Your task to perform on an android device: Show the shopping cart on walmart.com. Add "apple airpods" to the cart on walmart.com Image 0: 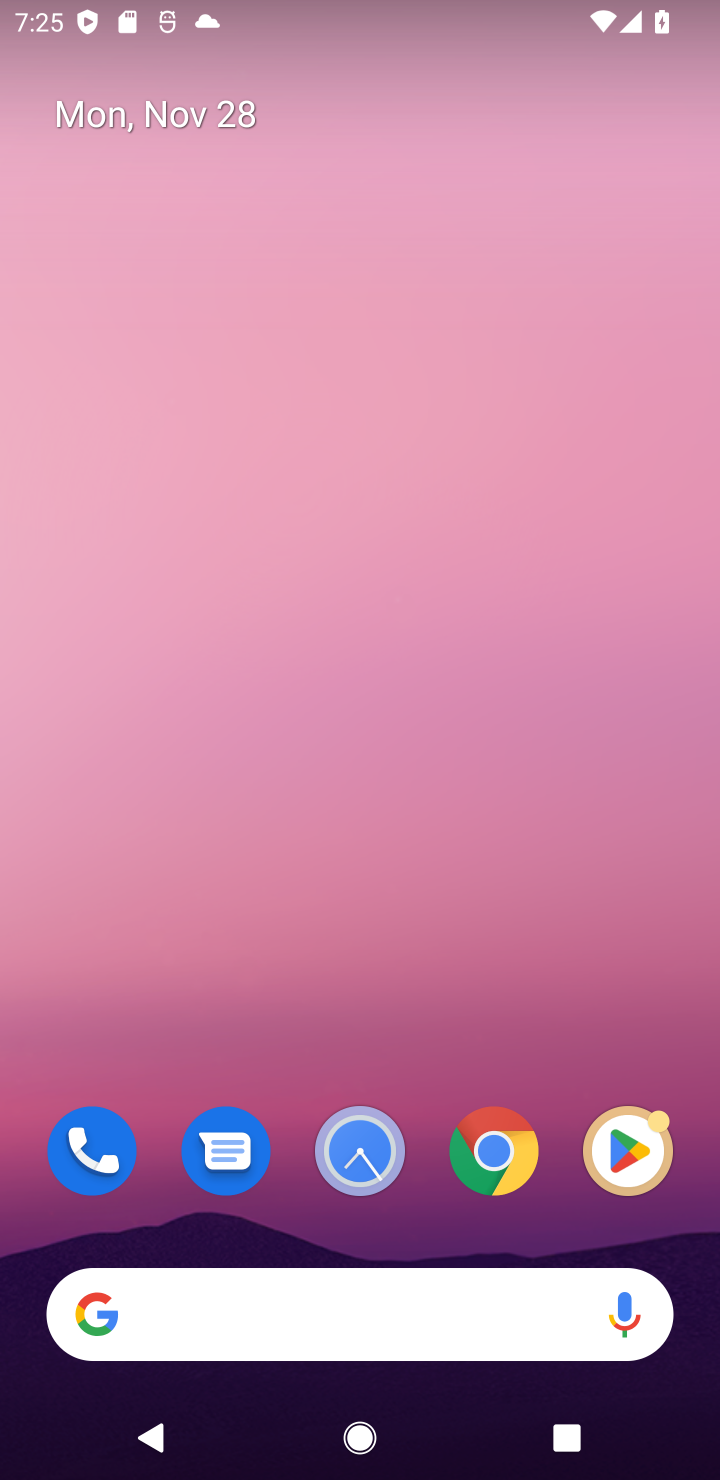
Step 0: click (219, 1351)
Your task to perform on an android device: Show the shopping cart on walmart.com. Add "apple airpods" to the cart on walmart.com Image 1: 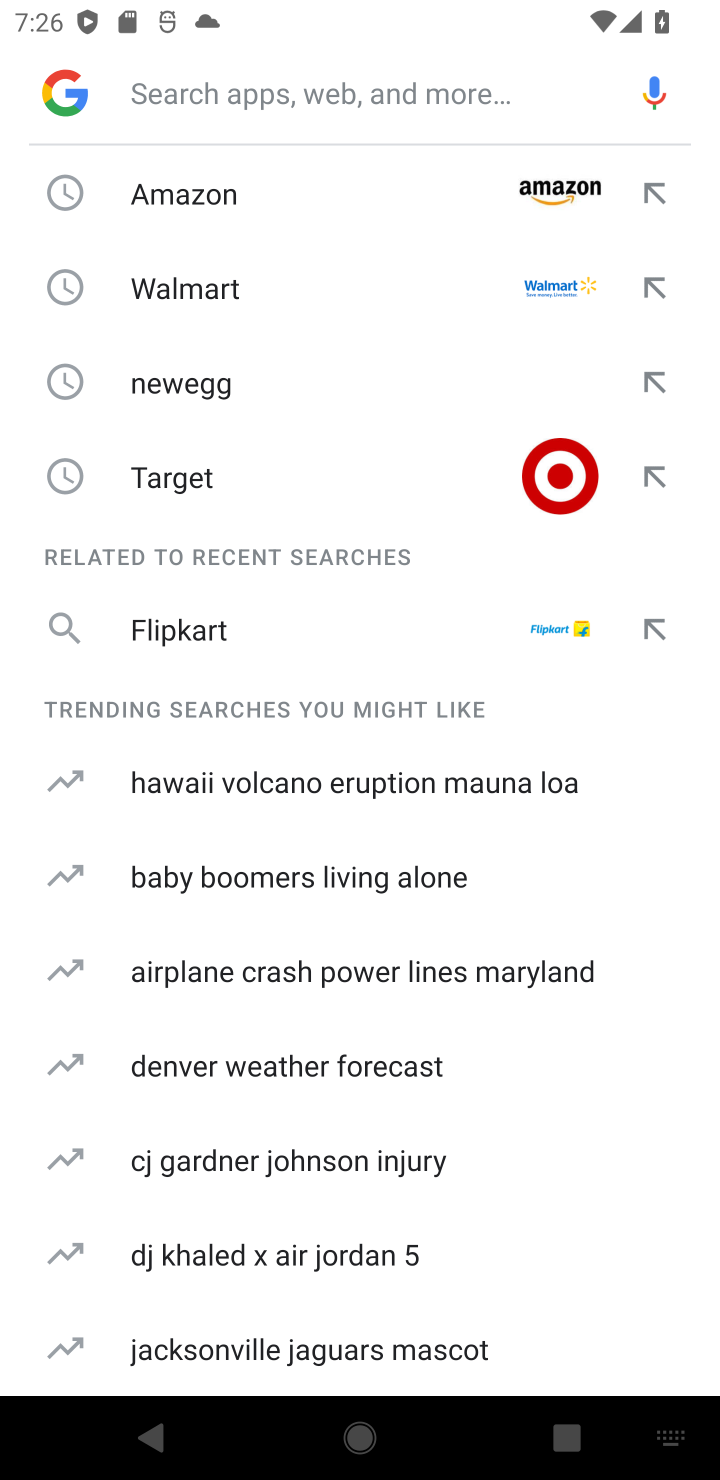
Step 1: type "walmart"
Your task to perform on an android device: Show the shopping cart on walmart.com. Add "apple airpods" to the cart on walmart.com Image 2: 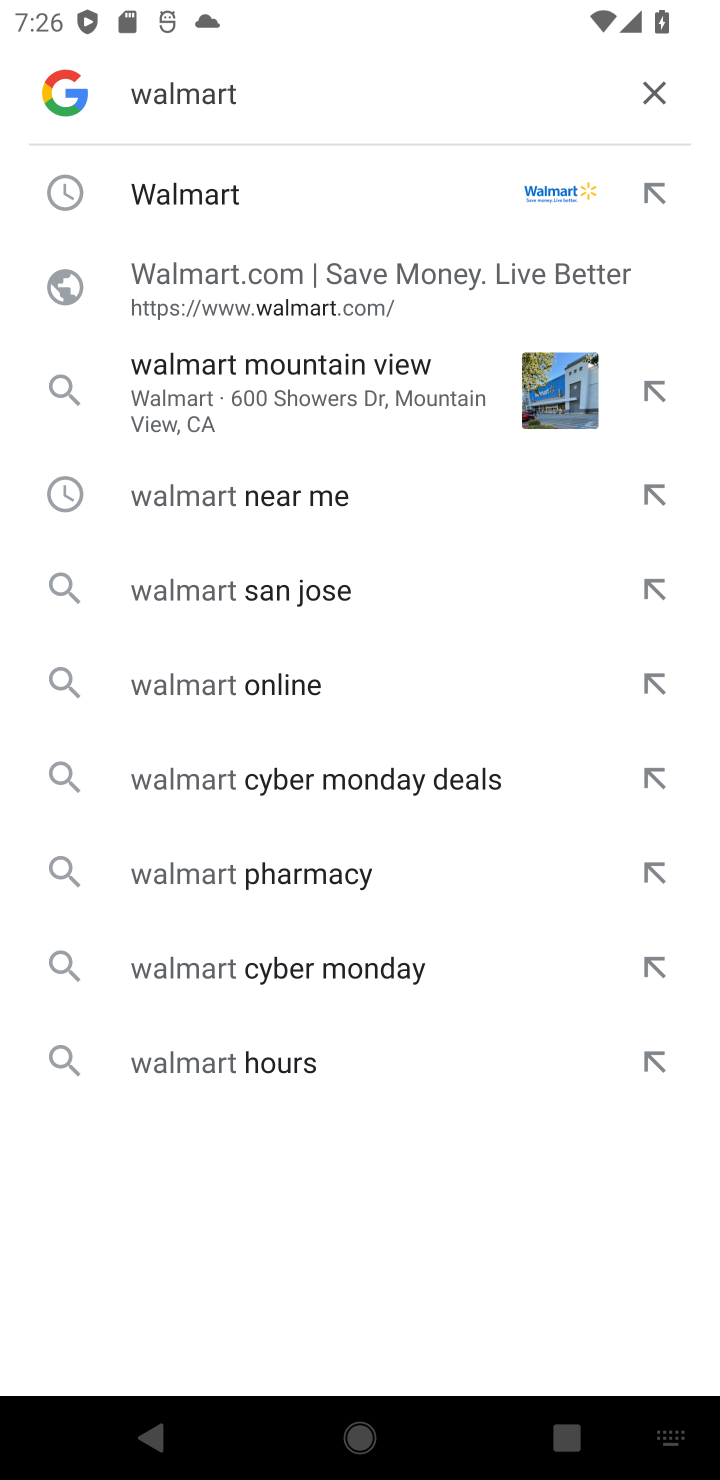
Step 2: click (163, 190)
Your task to perform on an android device: Show the shopping cart on walmart.com. Add "apple airpods" to the cart on walmart.com Image 3: 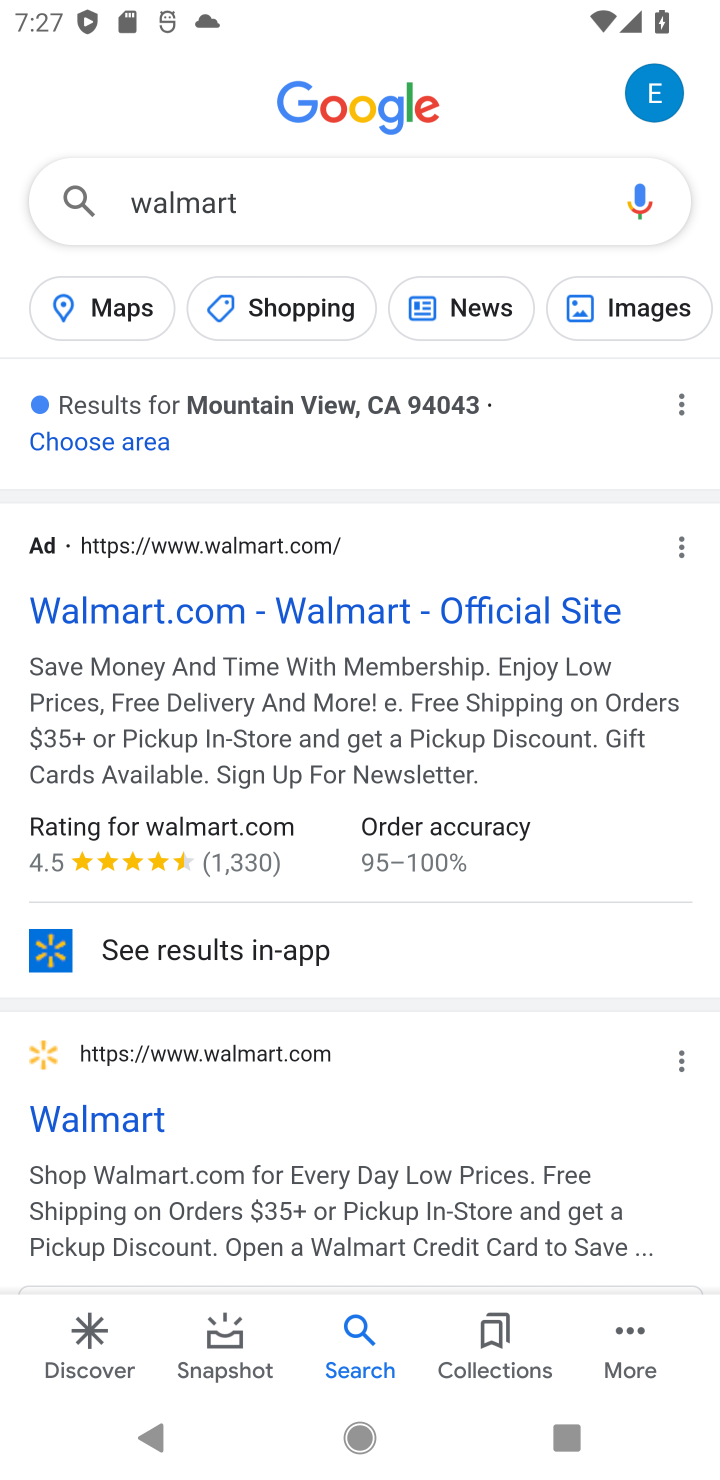
Step 3: task complete